Your task to perform on an android device: open app "Lyft - Rideshare, Bikes, Scooters & Transit" Image 0: 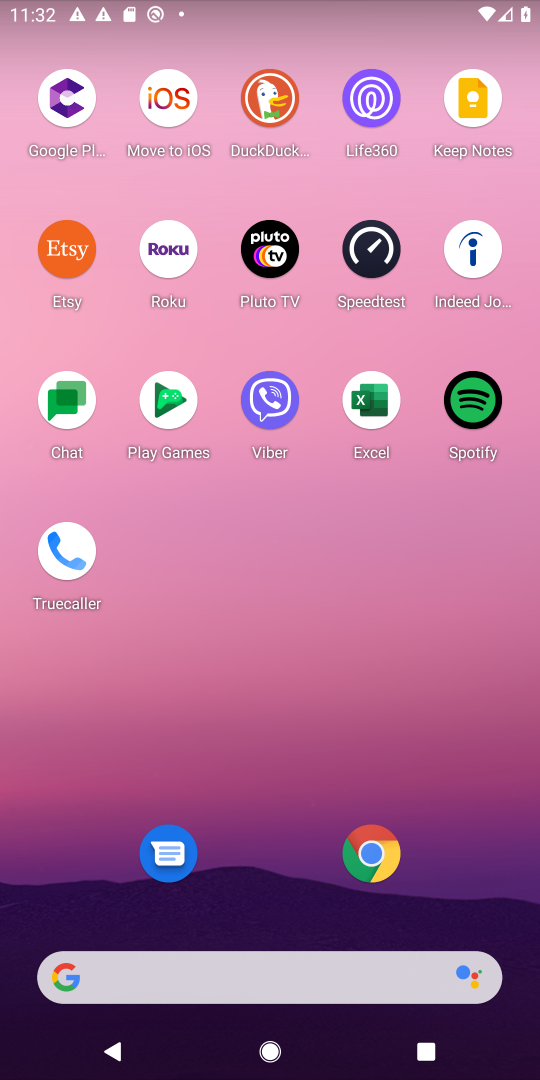
Step 0: drag from (35, 669) to (496, 686)
Your task to perform on an android device: open app "Lyft - Rideshare, Bikes, Scooters & Transit" Image 1: 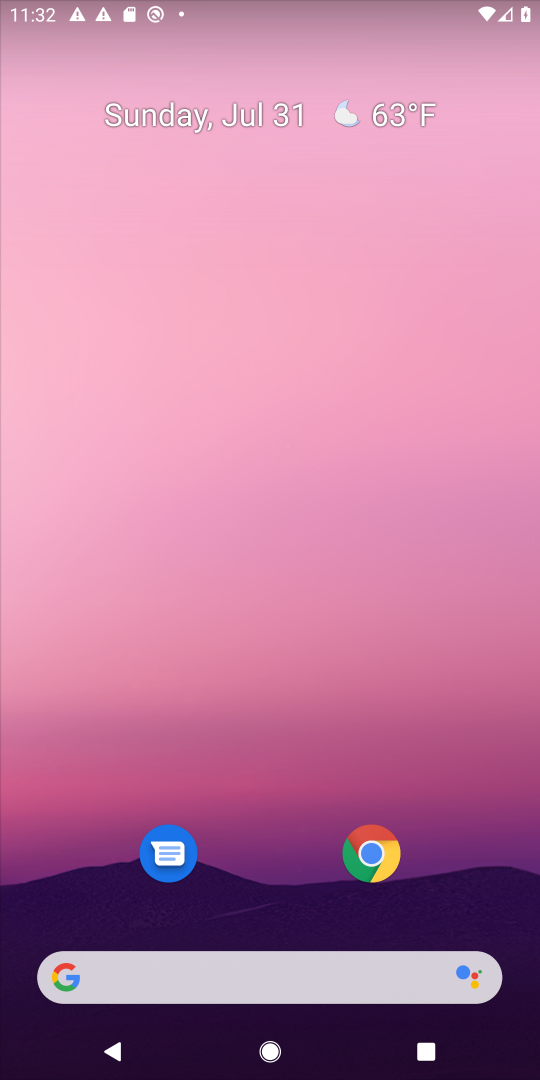
Step 1: drag from (311, 1046) to (307, 88)
Your task to perform on an android device: open app "Lyft - Rideshare, Bikes, Scooters & Transit" Image 2: 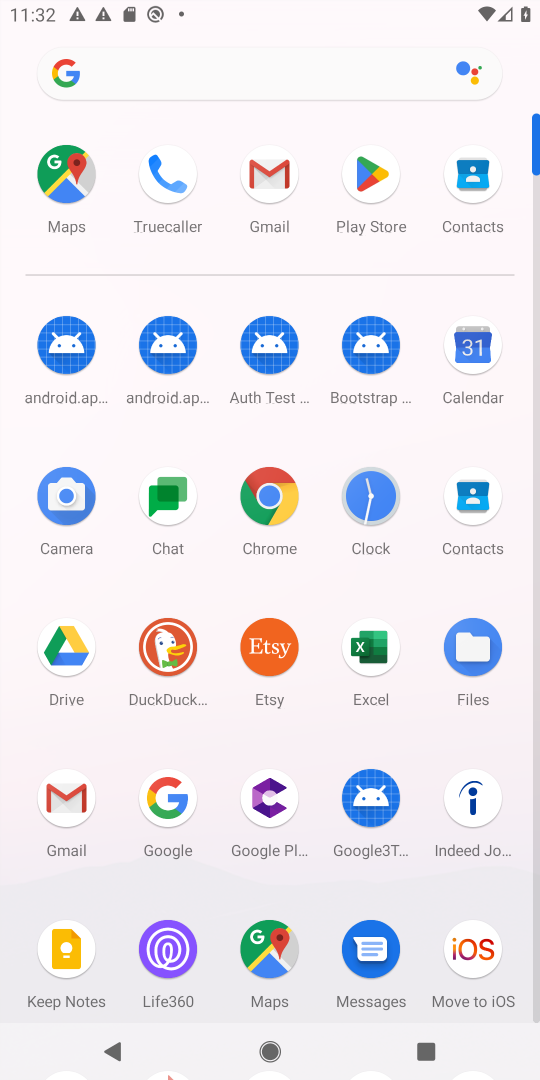
Step 2: click (370, 185)
Your task to perform on an android device: open app "Lyft - Rideshare, Bikes, Scooters & Transit" Image 3: 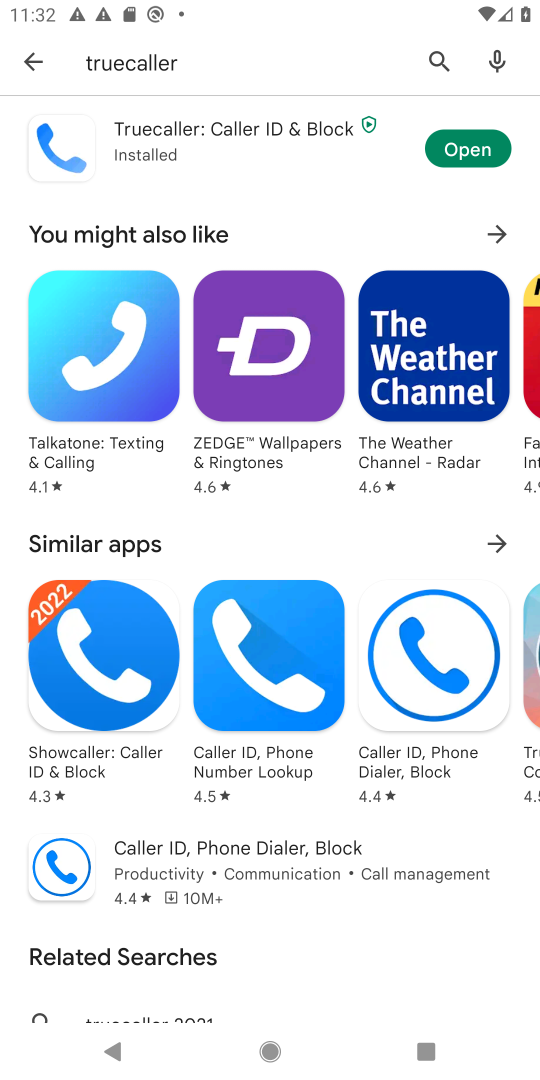
Step 3: click (437, 58)
Your task to perform on an android device: open app "Lyft - Rideshare, Bikes, Scooters & Transit" Image 4: 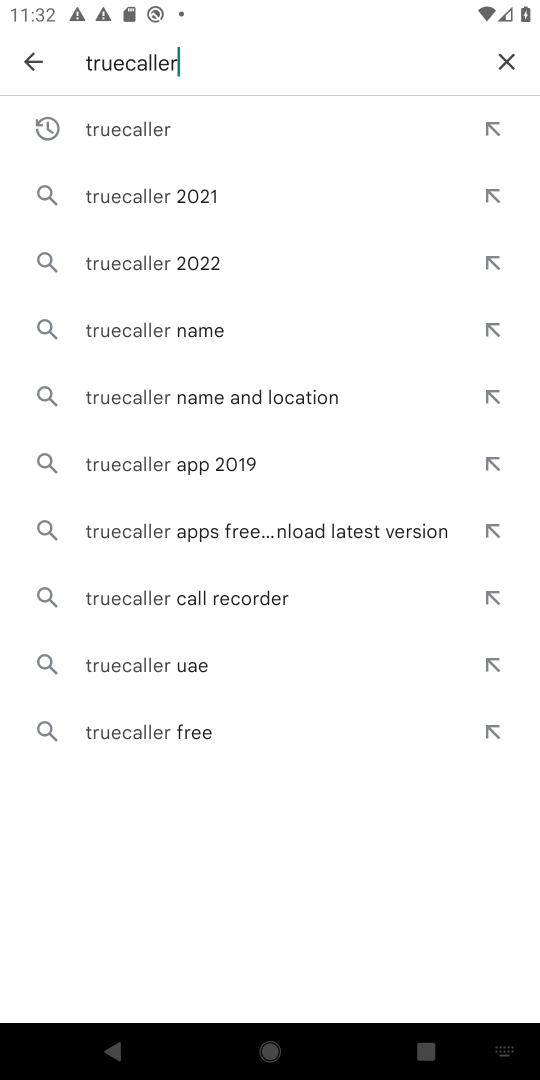
Step 4: click (509, 59)
Your task to perform on an android device: open app "Lyft - Rideshare, Bikes, Scooters & Transit" Image 5: 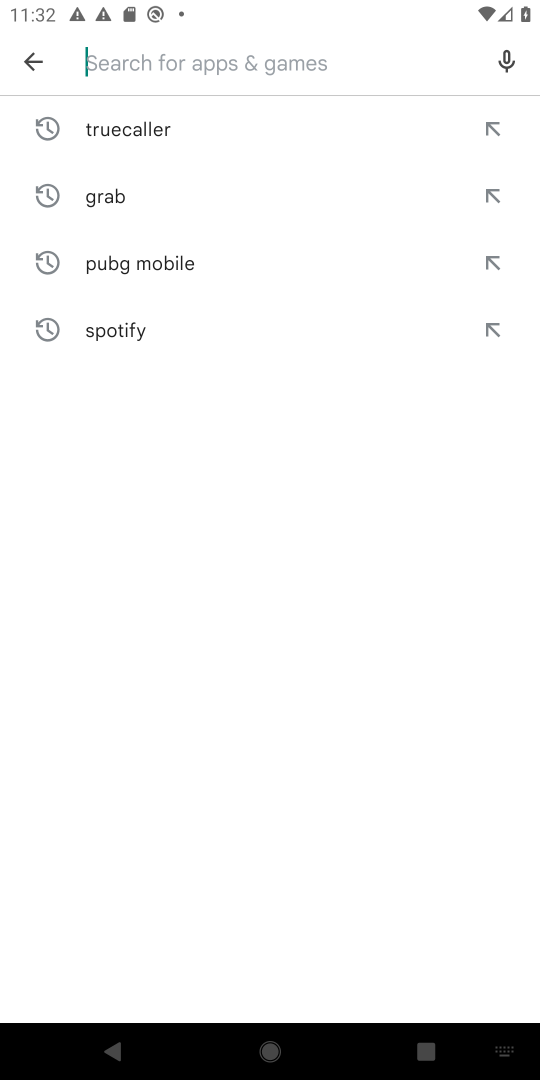
Step 5: type "Lyft - Rideshare, Bikes, Scooters & Transit"
Your task to perform on an android device: open app "Lyft - Rideshare, Bikes, Scooters & Transit" Image 6: 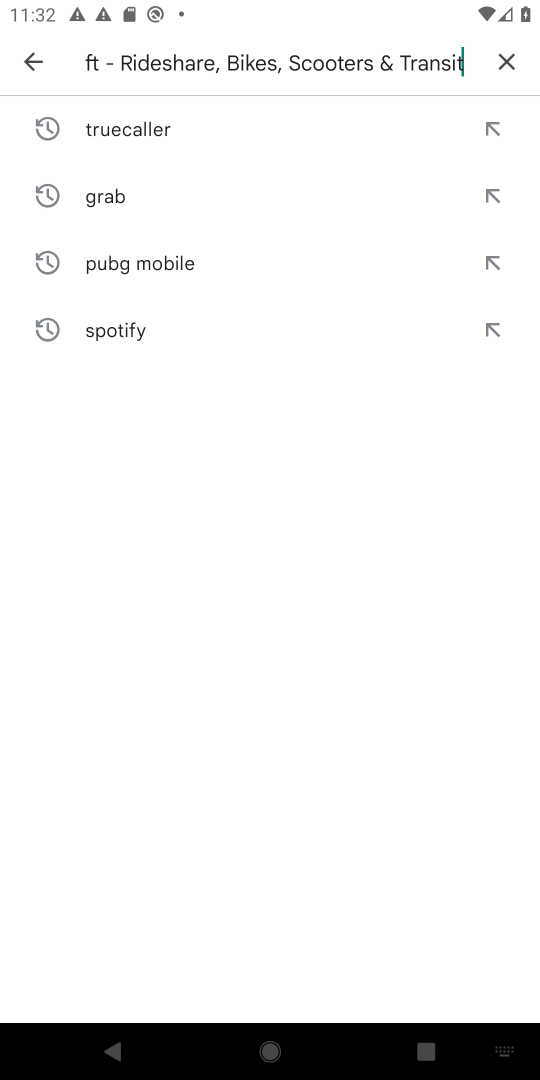
Step 6: type ""
Your task to perform on an android device: open app "Lyft - Rideshare, Bikes, Scooters & Transit" Image 7: 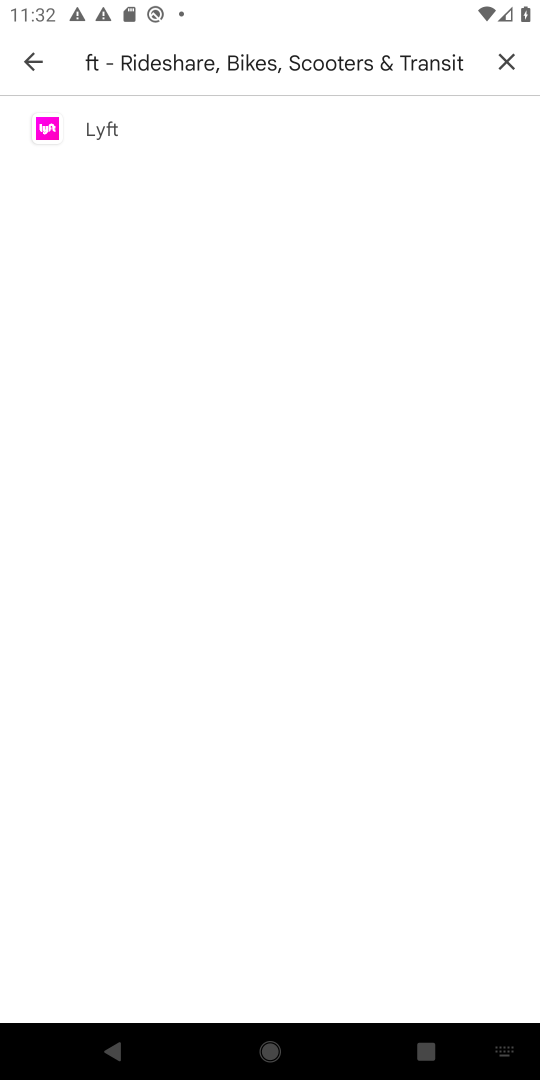
Step 7: click (102, 131)
Your task to perform on an android device: open app "Lyft - Rideshare, Bikes, Scooters & Transit" Image 8: 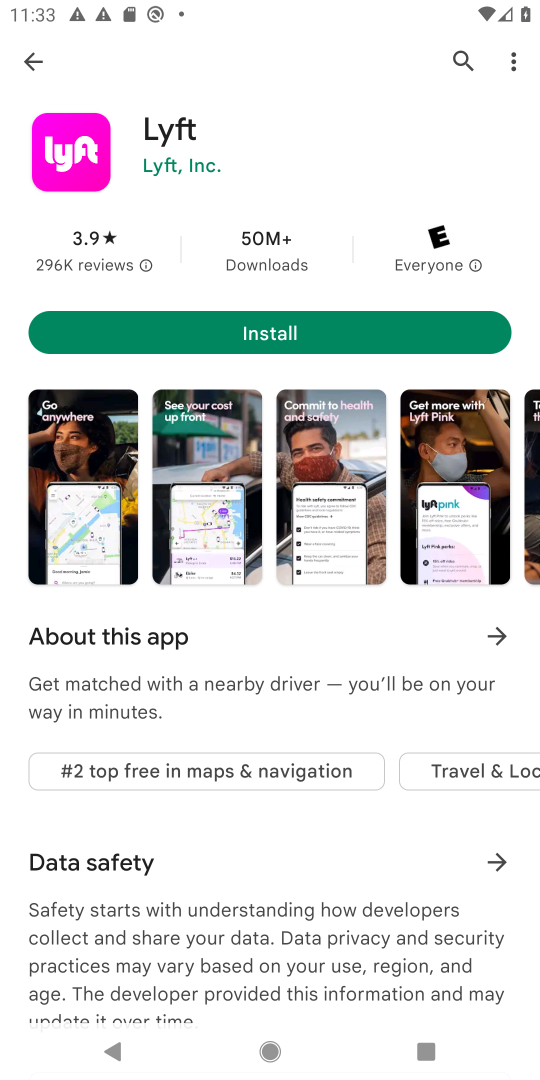
Step 8: task complete